Your task to perform on an android device: Go to network settings Image 0: 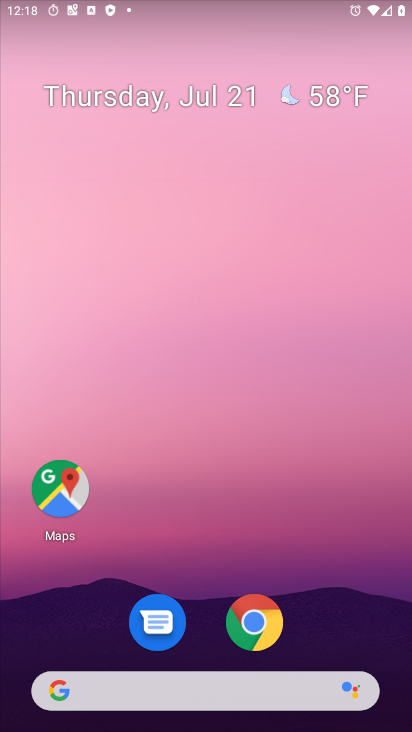
Step 0: drag from (37, 707) to (199, 70)
Your task to perform on an android device: Go to network settings Image 1: 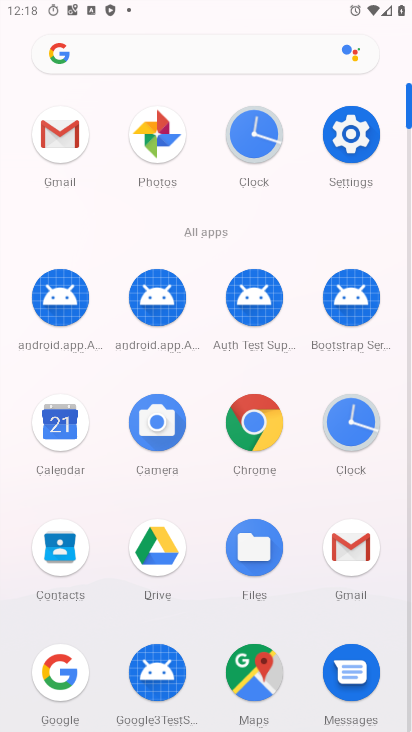
Step 1: drag from (231, 544) to (231, 470)
Your task to perform on an android device: Go to network settings Image 2: 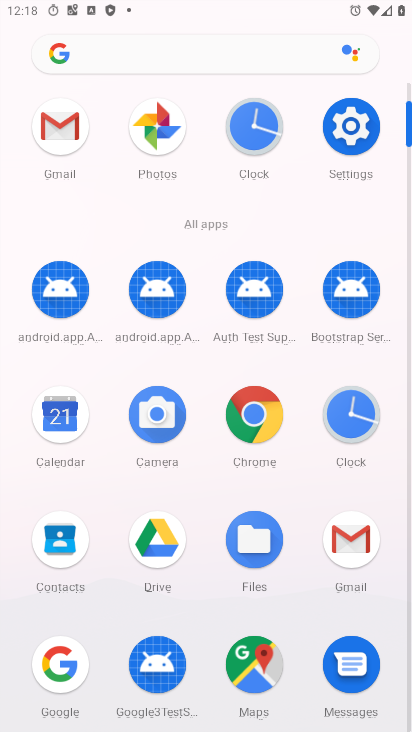
Step 2: click (350, 137)
Your task to perform on an android device: Go to network settings Image 3: 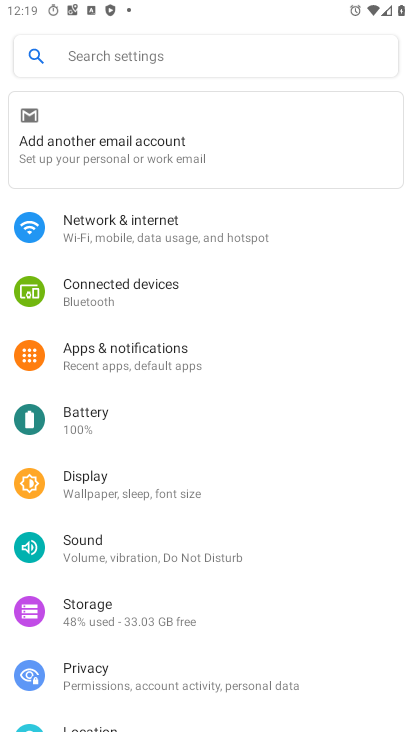
Step 3: click (96, 237)
Your task to perform on an android device: Go to network settings Image 4: 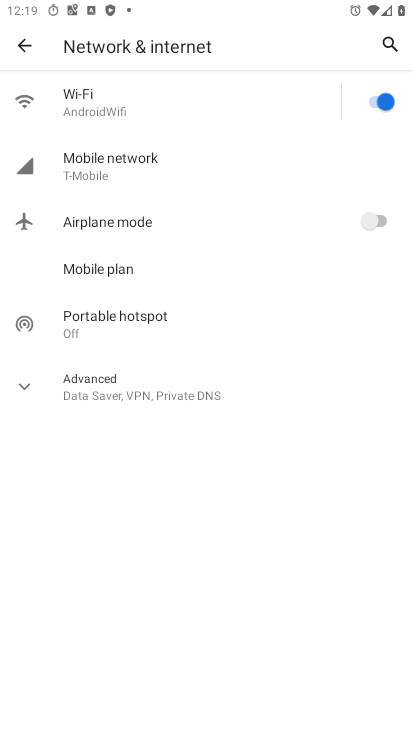
Step 4: task complete